Your task to perform on an android device: See recent photos Image 0: 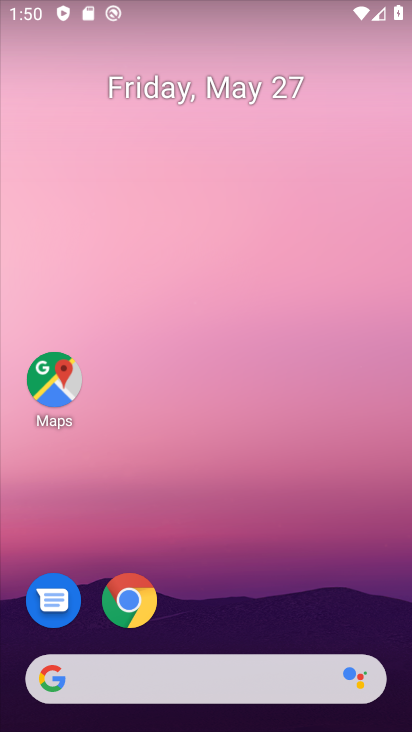
Step 0: drag from (272, 461) to (268, 37)
Your task to perform on an android device: See recent photos Image 1: 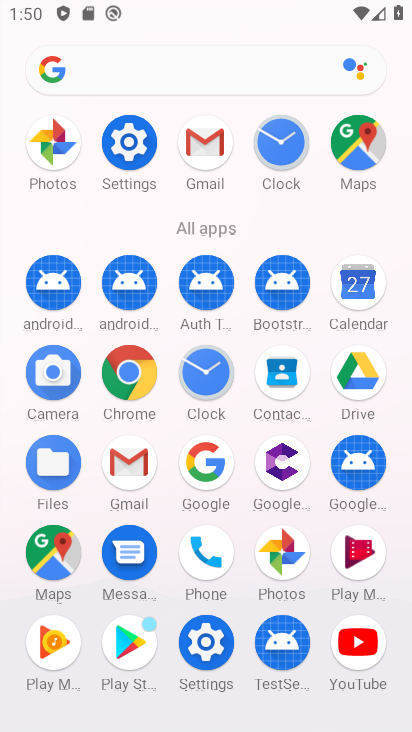
Step 1: drag from (3, 574) to (16, 248)
Your task to perform on an android device: See recent photos Image 2: 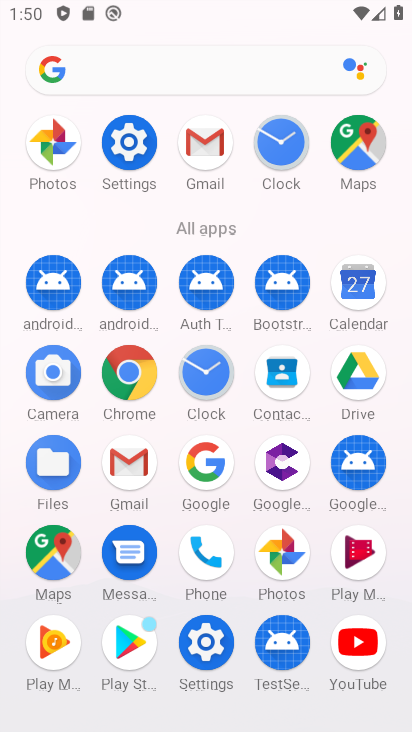
Step 2: click (284, 542)
Your task to perform on an android device: See recent photos Image 3: 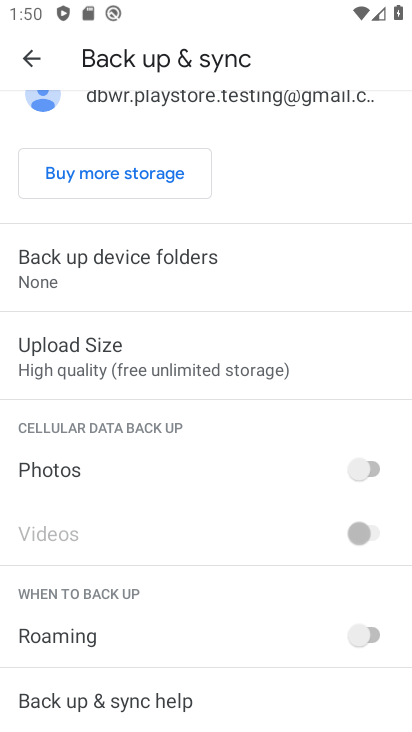
Step 3: click (18, 61)
Your task to perform on an android device: See recent photos Image 4: 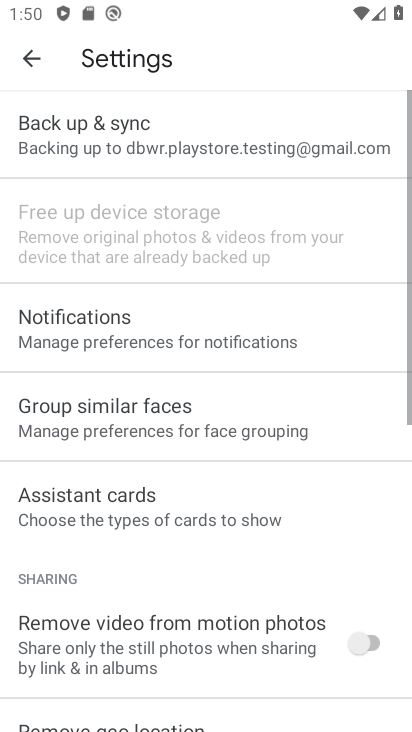
Step 4: click (18, 61)
Your task to perform on an android device: See recent photos Image 5: 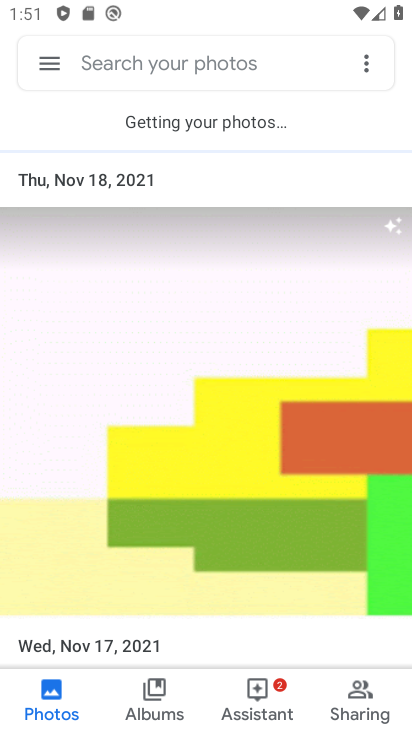
Step 5: task complete